Your task to perform on an android device: Go to Google maps Image 0: 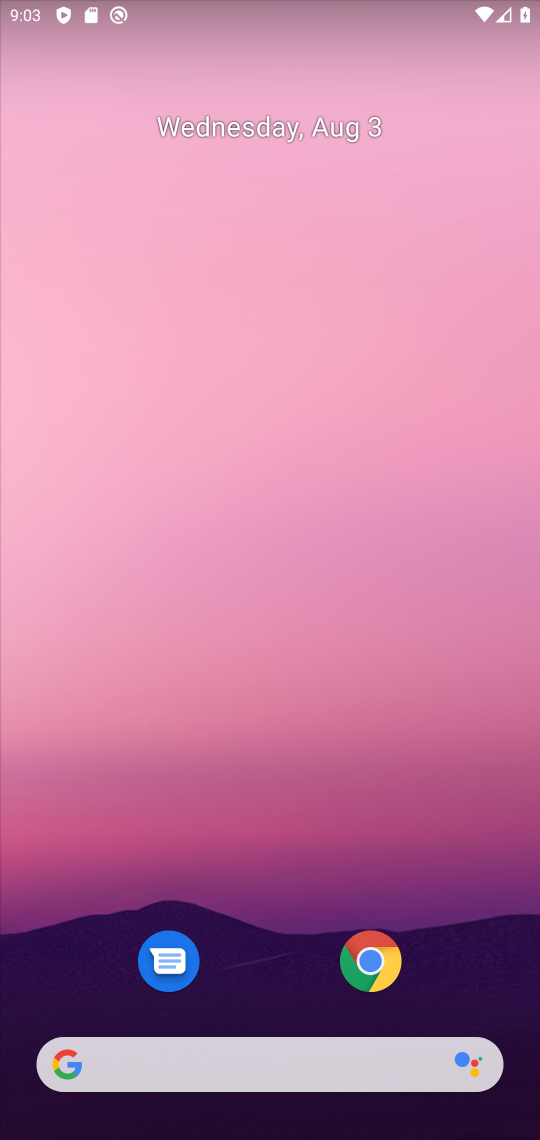
Step 0: drag from (320, 1021) to (214, 128)
Your task to perform on an android device: Go to Google maps Image 1: 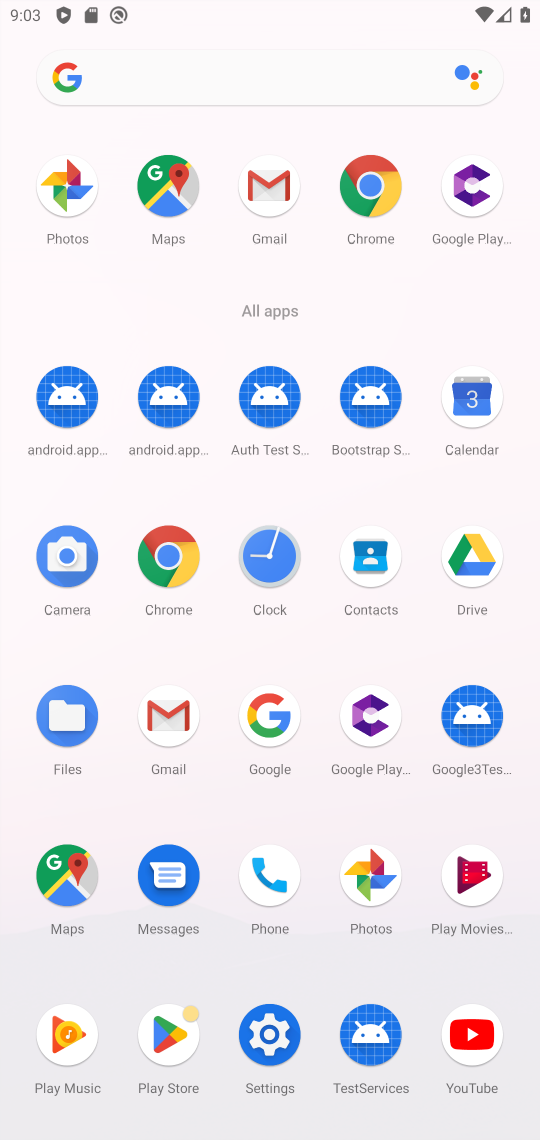
Step 1: click (21, 900)
Your task to perform on an android device: Go to Google maps Image 2: 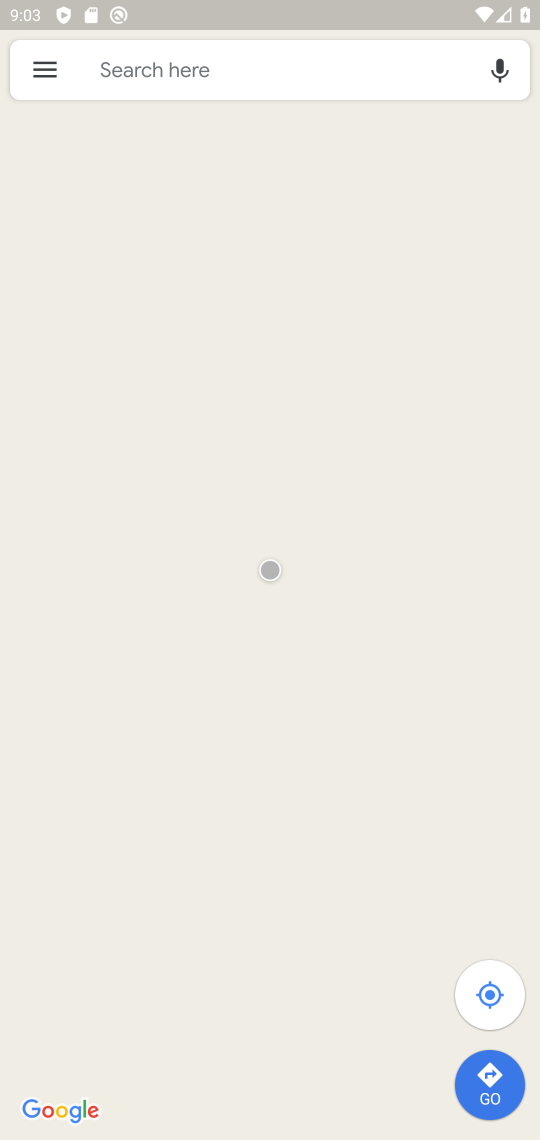
Step 2: task complete